Your task to perform on an android device: change text size in settings app Image 0: 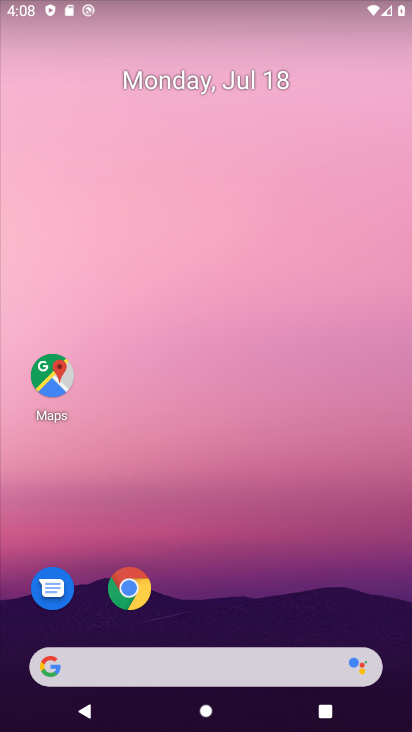
Step 0: drag from (210, 593) to (347, 12)
Your task to perform on an android device: change text size in settings app Image 1: 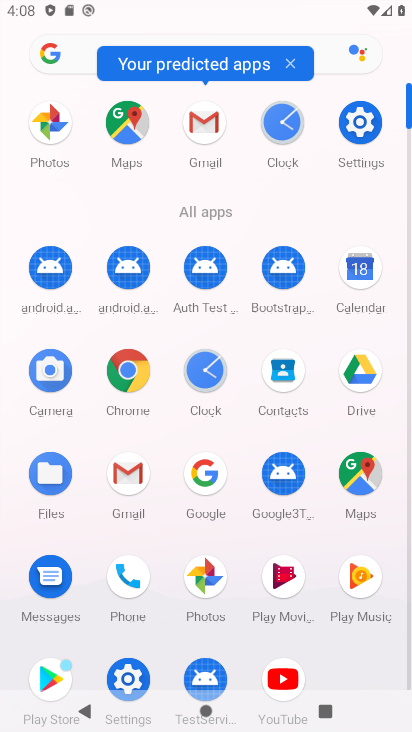
Step 1: click (133, 670)
Your task to perform on an android device: change text size in settings app Image 2: 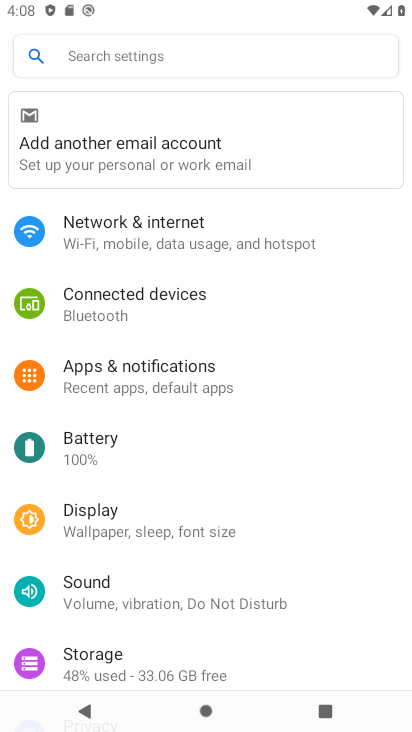
Step 2: click (114, 529)
Your task to perform on an android device: change text size in settings app Image 3: 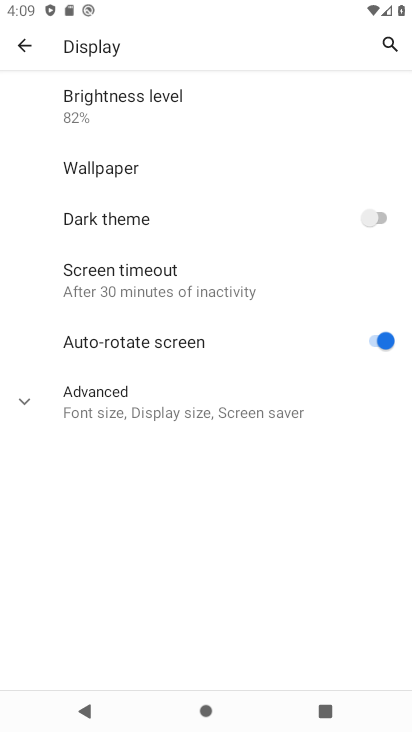
Step 3: click (204, 402)
Your task to perform on an android device: change text size in settings app Image 4: 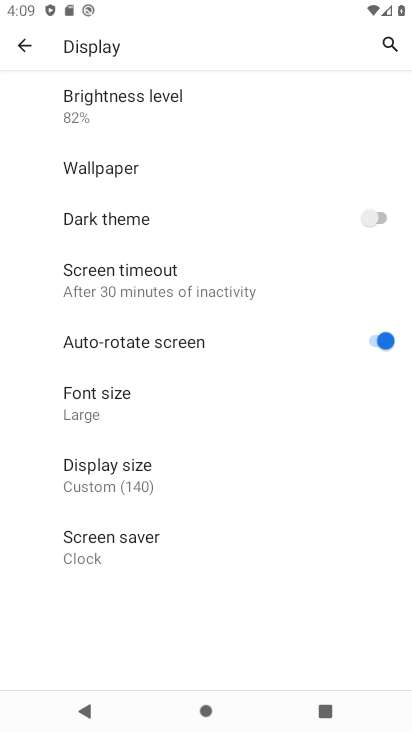
Step 4: click (176, 409)
Your task to perform on an android device: change text size in settings app Image 5: 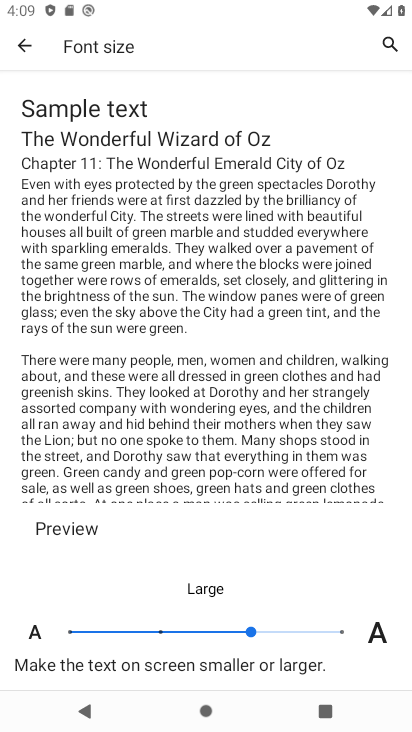
Step 5: click (340, 633)
Your task to perform on an android device: change text size in settings app Image 6: 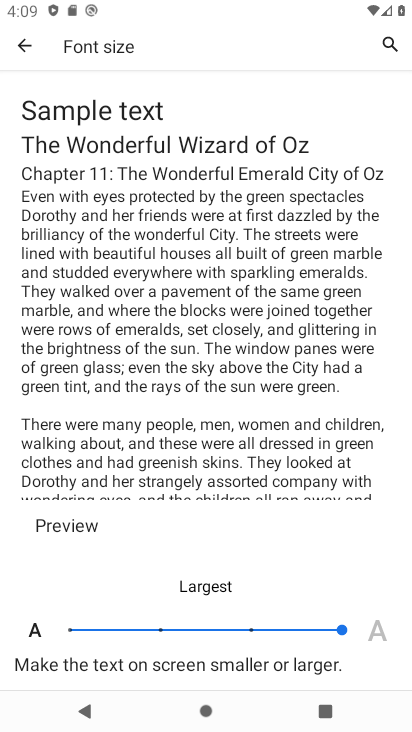
Step 6: task complete